Your task to perform on an android device: turn on airplane mode Image 0: 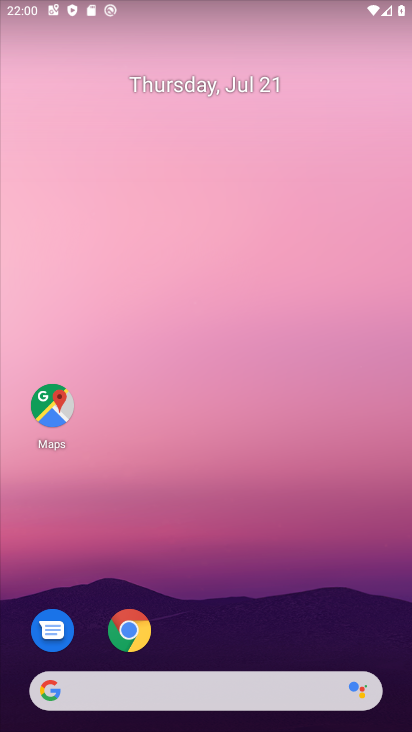
Step 0: drag from (229, 656) to (197, 256)
Your task to perform on an android device: turn on airplane mode Image 1: 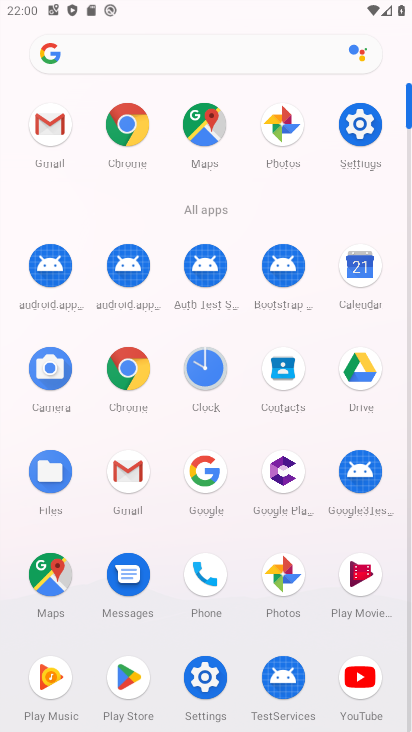
Step 1: click (375, 118)
Your task to perform on an android device: turn on airplane mode Image 2: 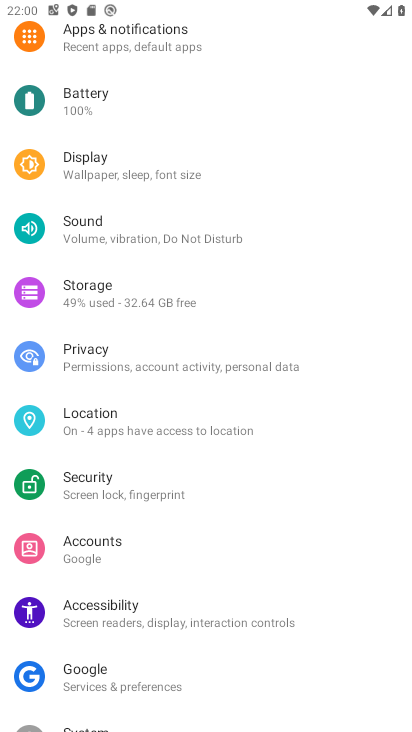
Step 2: drag from (375, 118) to (323, 513)
Your task to perform on an android device: turn on airplane mode Image 3: 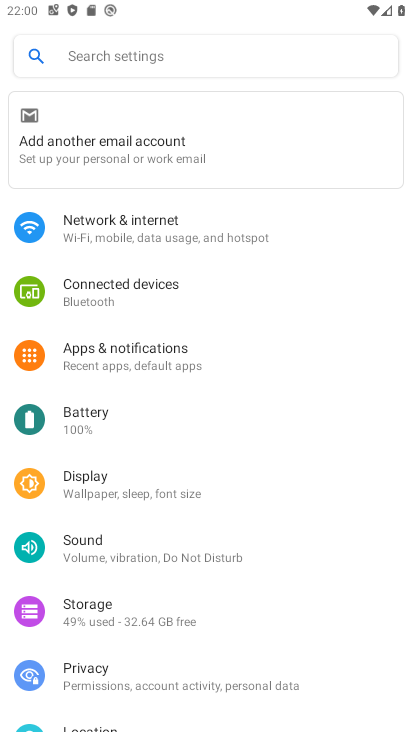
Step 3: click (141, 226)
Your task to perform on an android device: turn on airplane mode Image 4: 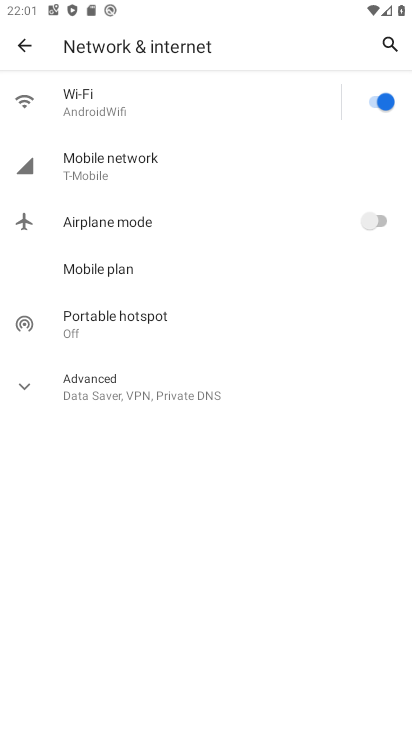
Step 4: click (366, 223)
Your task to perform on an android device: turn on airplane mode Image 5: 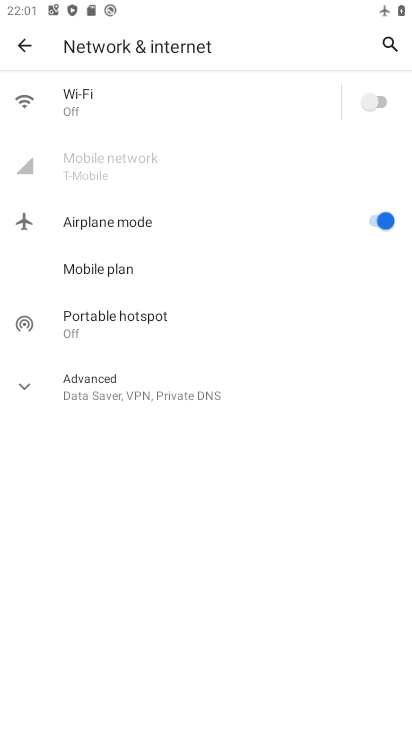
Step 5: task complete